Your task to perform on an android device: Go to battery settings Image 0: 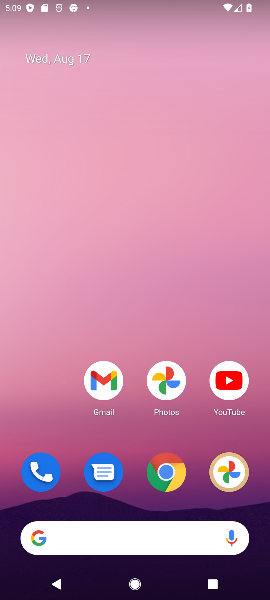
Step 0: drag from (138, 432) to (144, 149)
Your task to perform on an android device: Go to battery settings Image 1: 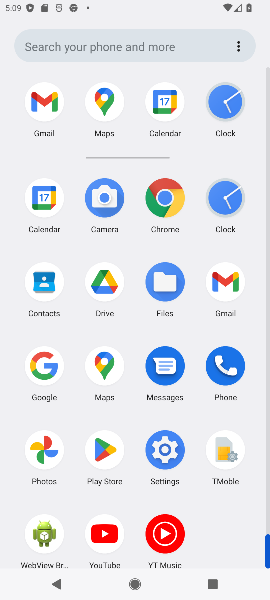
Step 1: click (171, 453)
Your task to perform on an android device: Go to battery settings Image 2: 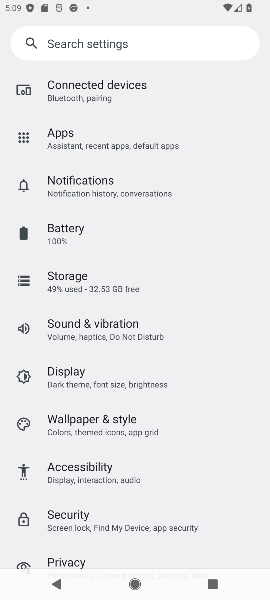
Step 2: click (99, 230)
Your task to perform on an android device: Go to battery settings Image 3: 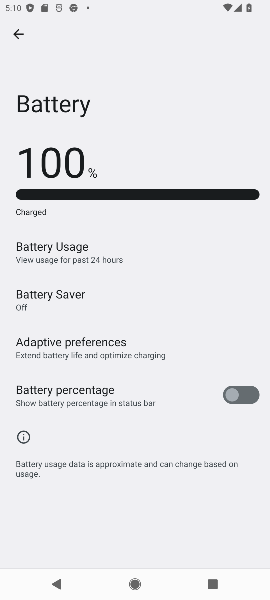
Step 3: task complete